Your task to perform on an android device: Go to notification settings Image 0: 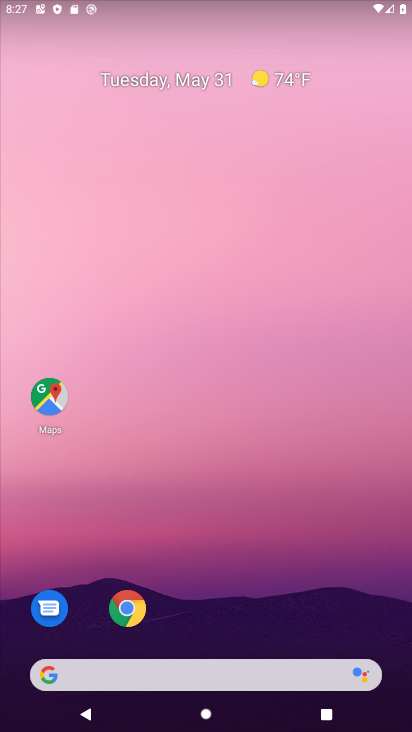
Step 0: drag from (194, 647) to (193, 239)
Your task to perform on an android device: Go to notification settings Image 1: 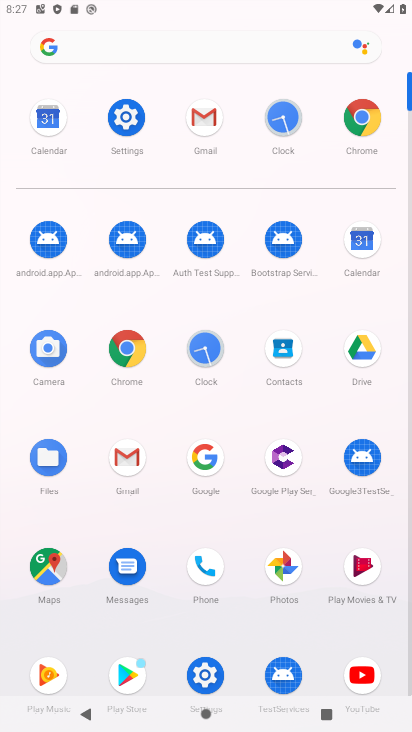
Step 1: click (112, 113)
Your task to perform on an android device: Go to notification settings Image 2: 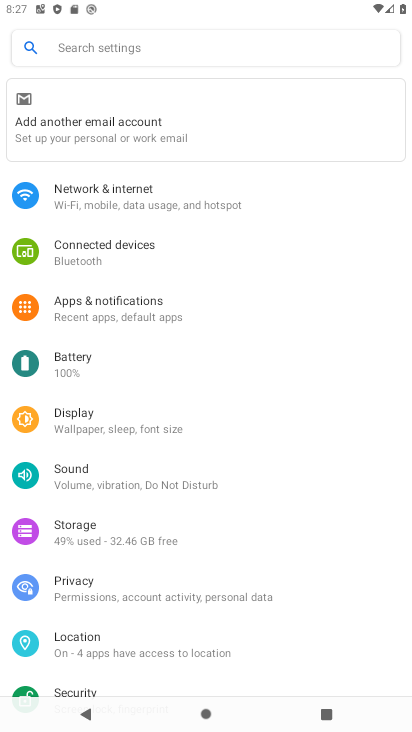
Step 2: click (112, 317)
Your task to perform on an android device: Go to notification settings Image 3: 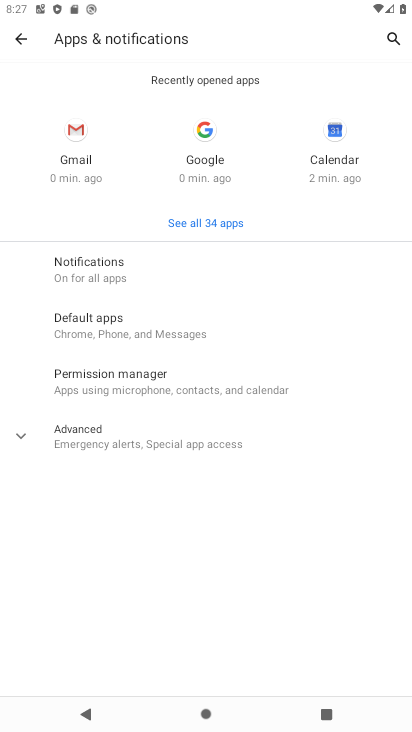
Step 3: click (99, 280)
Your task to perform on an android device: Go to notification settings Image 4: 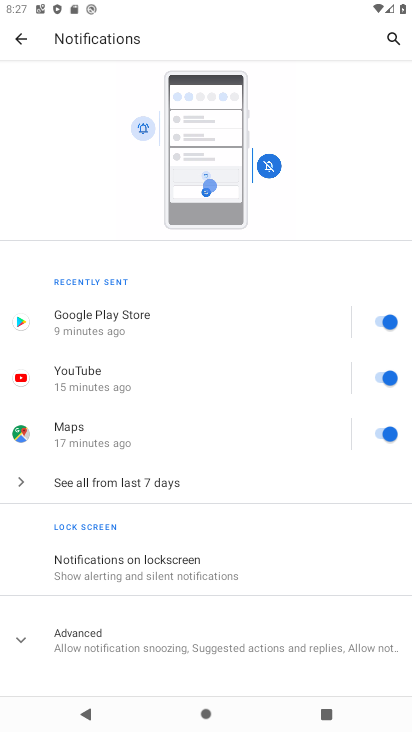
Step 4: click (135, 644)
Your task to perform on an android device: Go to notification settings Image 5: 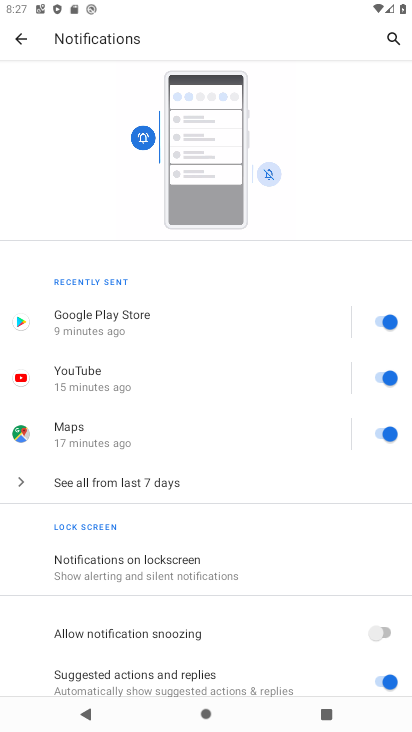
Step 5: click (127, 485)
Your task to perform on an android device: Go to notification settings Image 6: 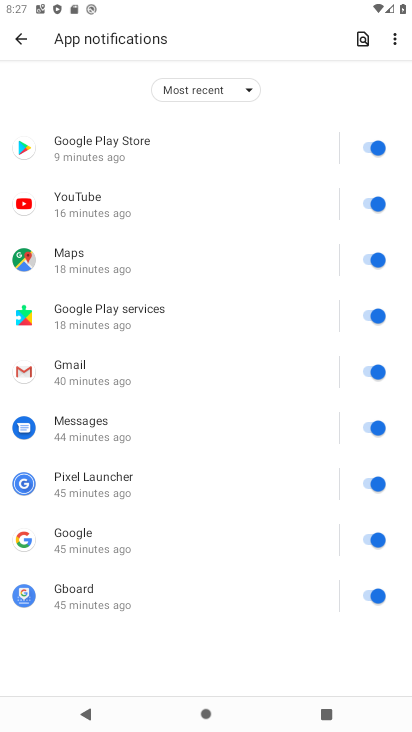
Step 6: task complete